Your task to perform on an android device: Open internet settings Image 0: 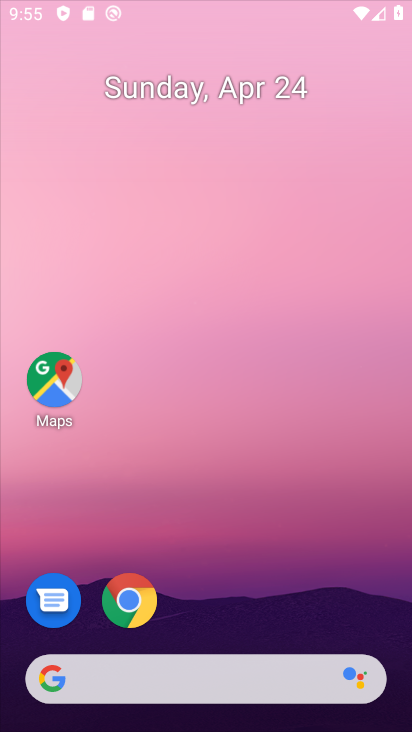
Step 0: drag from (207, 579) to (408, 30)
Your task to perform on an android device: Open internet settings Image 1: 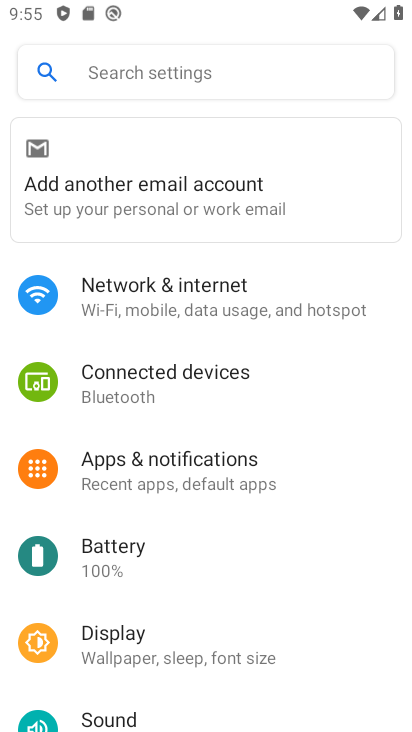
Step 1: press home button
Your task to perform on an android device: Open internet settings Image 2: 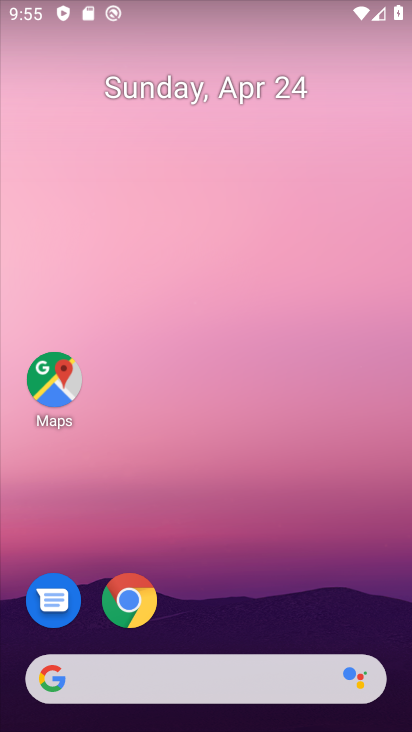
Step 2: drag from (239, 594) to (184, 42)
Your task to perform on an android device: Open internet settings Image 3: 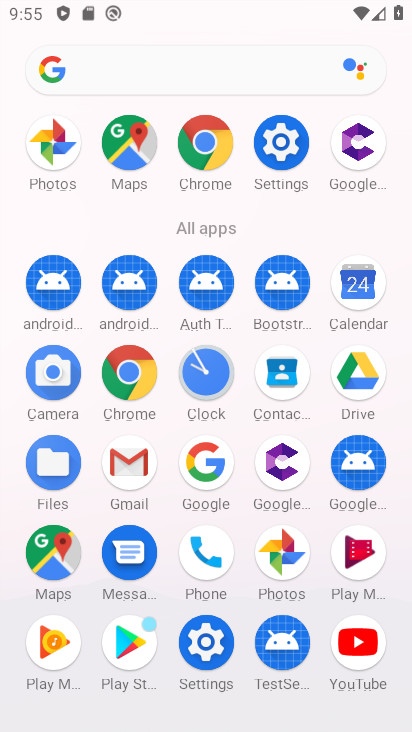
Step 3: click (280, 140)
Your task to perform on an android device: Open internet settings Image 4: 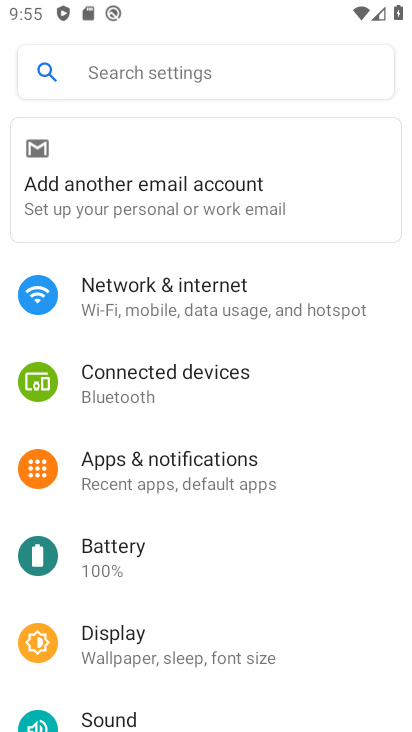
Step 4: click (114, 288)
Your task to perform on an android device: Open internet settings Image 5: 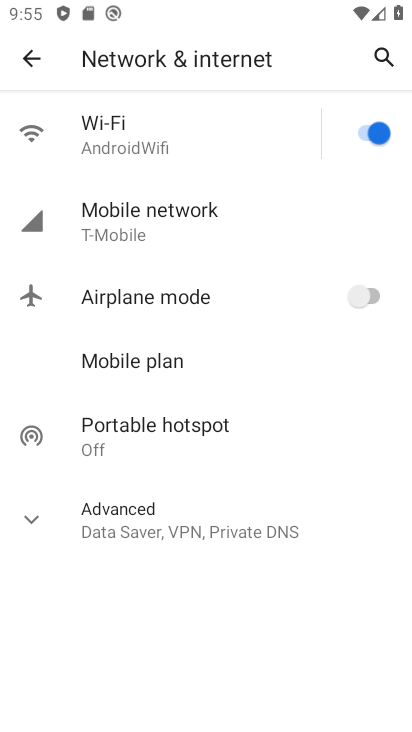
Step 5: task complete